Your task to perform on an android device: open a new tab in the chrome app Image 0: 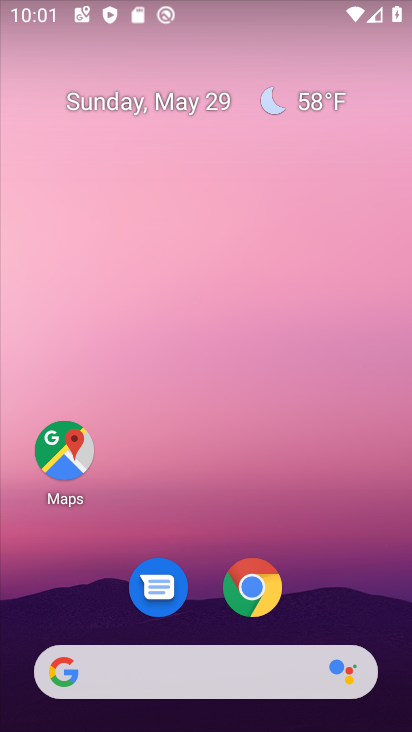
Step 0: click (265, 602)
Your task to perform on an android device: open a new tab in the chrome app Image 1: 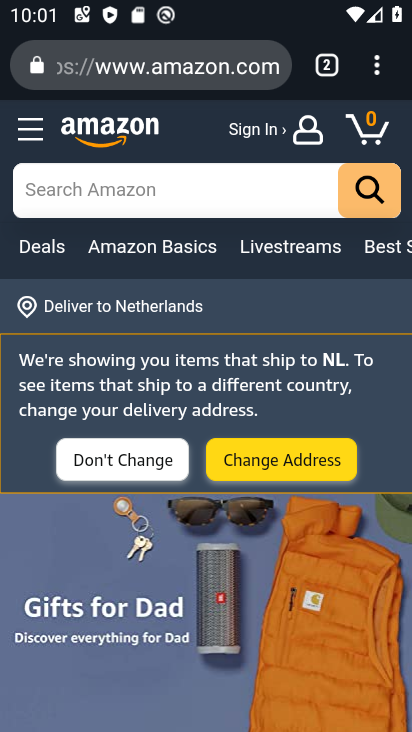
Step 1: click (391, 68)
Your task to perform on an android device: open a new tab in the chrome app Image 2: 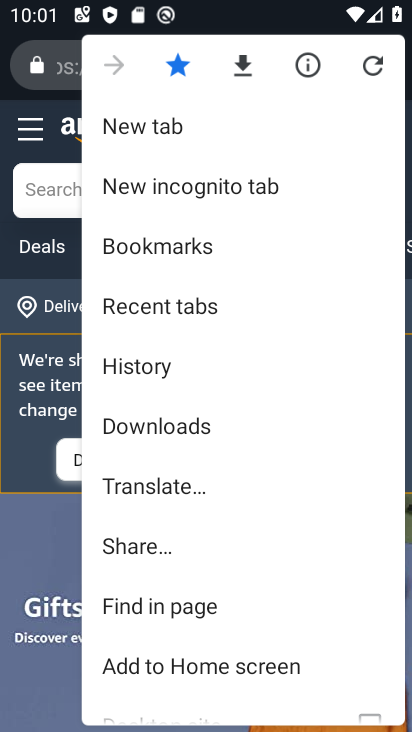
Step 2: click (220, 126)
Your task to perform on an android device: open a new tab in the chrome app Image 3: 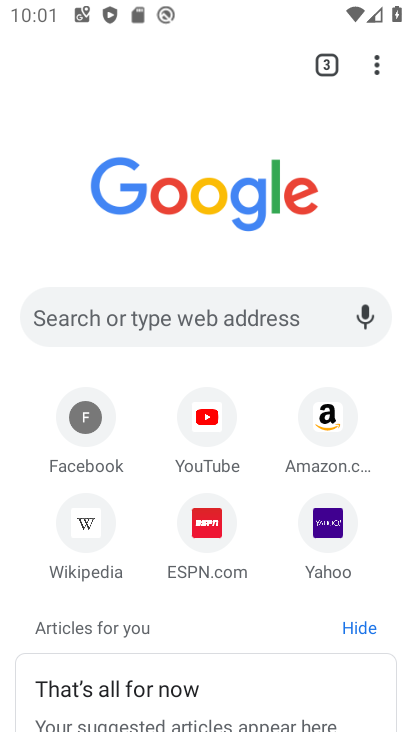
Step 3: task complete